Your task to perform on an android device: Open CNN.com Image 0: 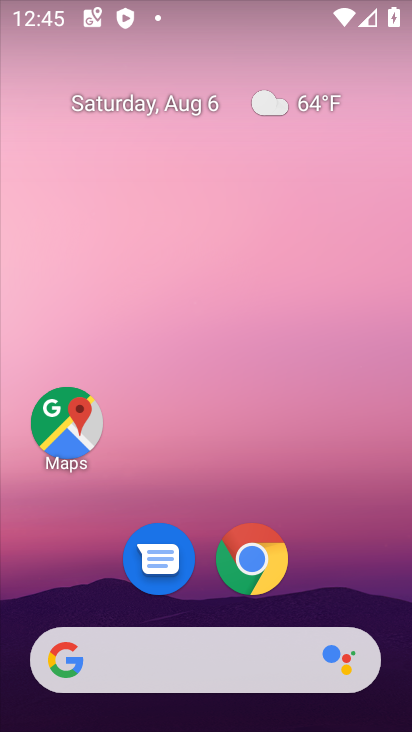
Step 0: click (191, 656)
Your task to perform on an android device: Open CNN.com Image 1: 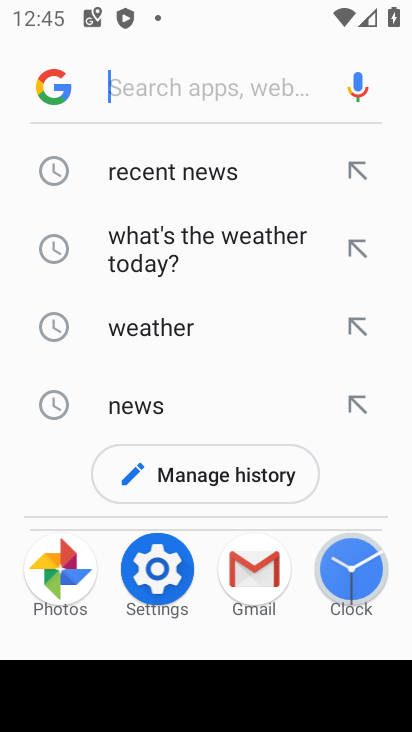
Step 1: type "cnn.com"
Your task to perform on an android device: Open CNN.com Image 2: 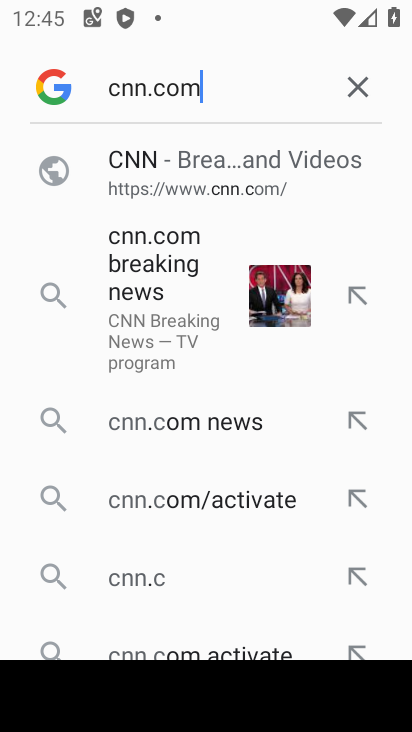
Step 2: click (181, 161)
Your task to perform on an android device: Open CNN.com Image 3: 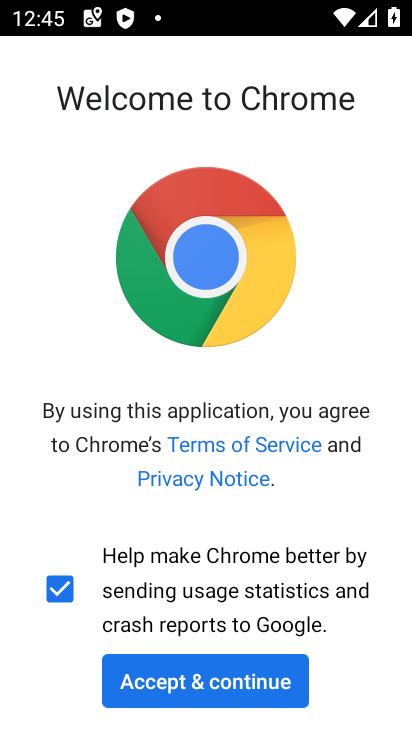
Step 3: click (164, 692)
Your task to perform on an android device: Open CNN.com Image 4: 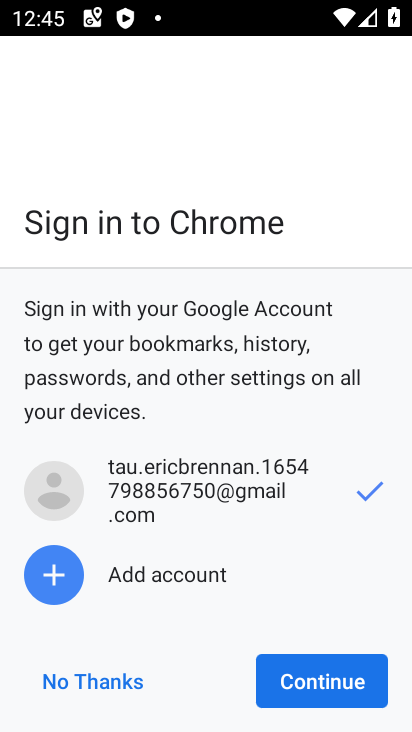
Step 4: click (315, 698)
Your task to perform on an android device: Open CNN.com Image 5: 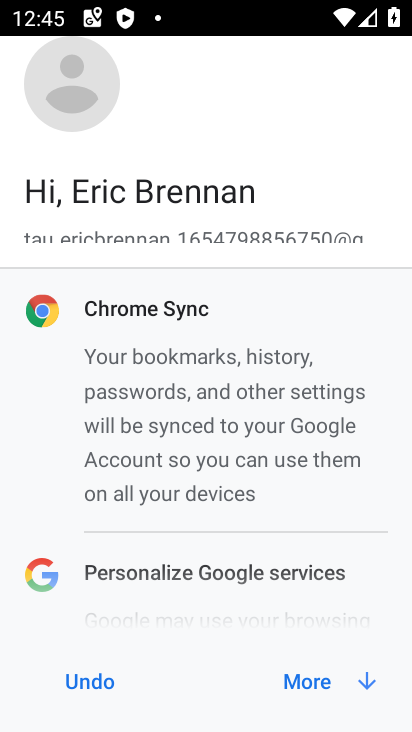
Step 5: click (316, 684)
Your task to perform on an android device: Open CNN.com Image 6: 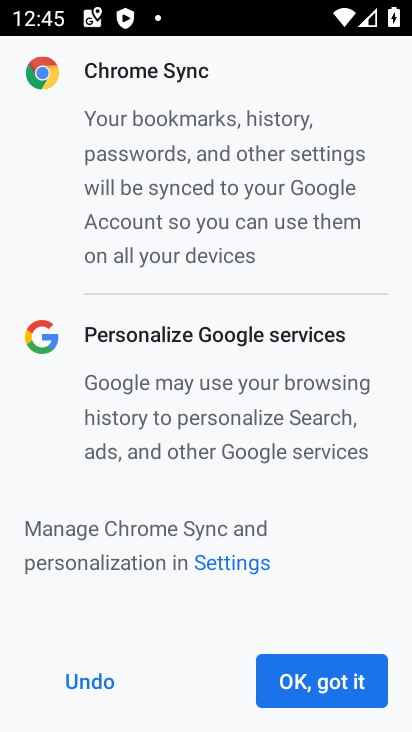
Step 6: click (316, 684)
Your task to perform on an android device: Open CNN.com Image 7: 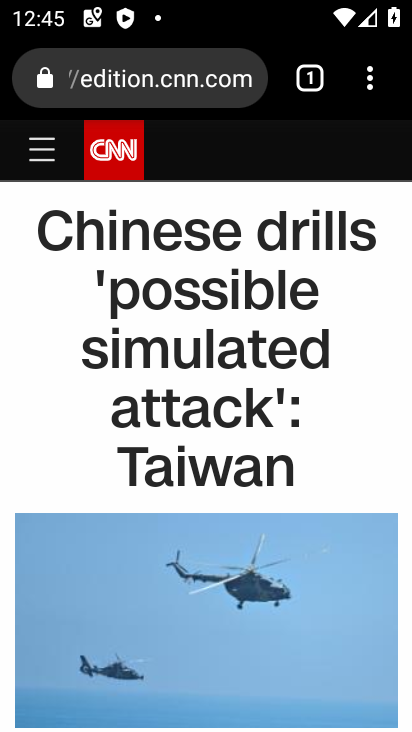
Step 7: task complete